Your task to perform on an android device: Toggle the flashlight Image 0: 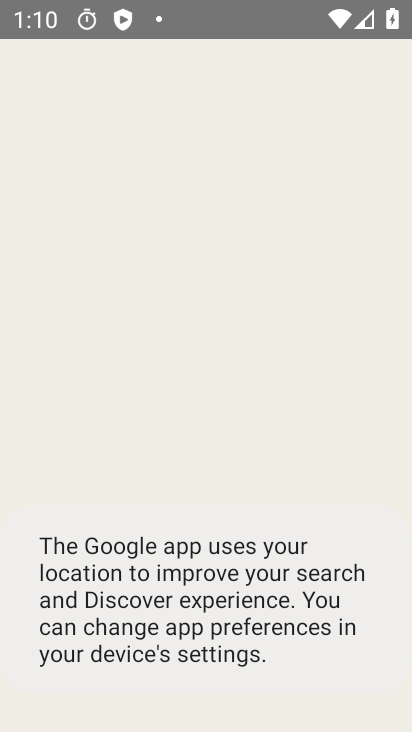
Step 0: press home button
Your task to perform on an android device: Toggle the flashlight Image 1: 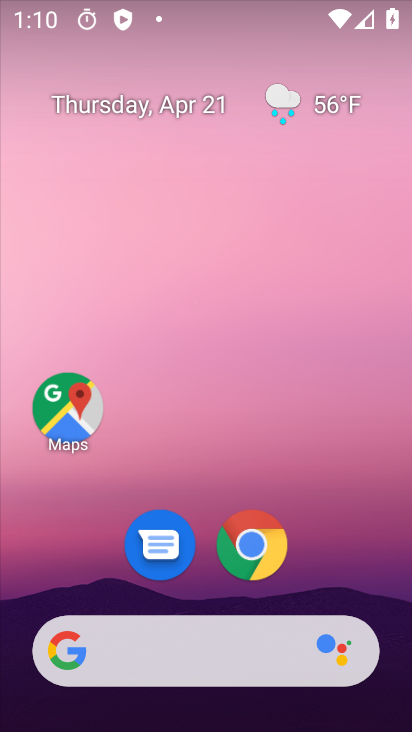
Step 1: task complete